Your task to perform on an android device: Go to Amazon Image 0: 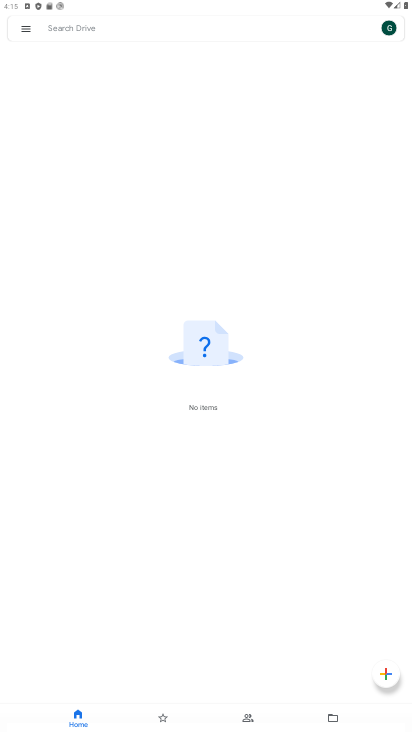
Step 0: press home button
Your task to perform on an android device: Go to Amazon Image 1: 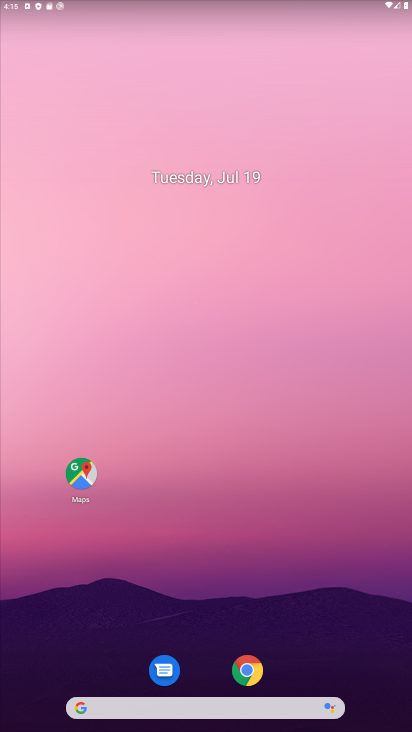
Step 1: drag from (163, 704) to (265, 99)
Your task to perform on an android device: Go to Amazon Image 2: 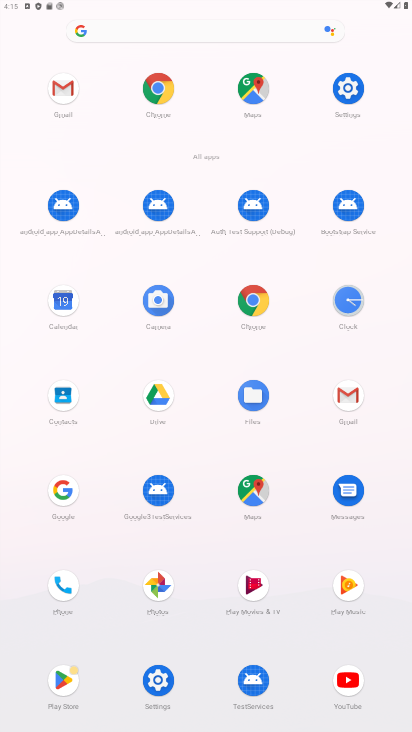
Step 2: click (270, 298)
Your task to perform on an android device: Go to Amazon Image 3: 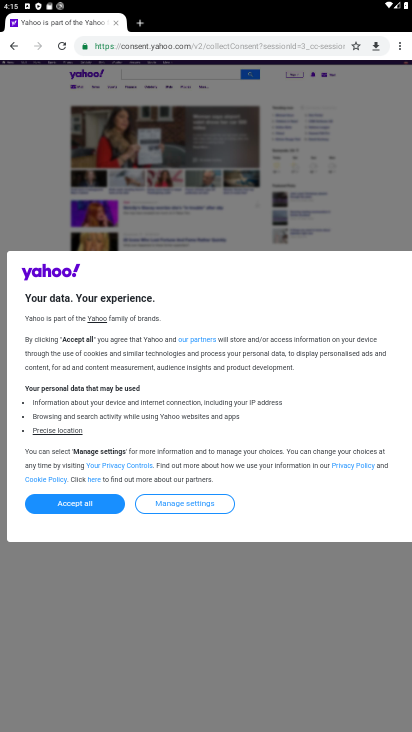
Step 3: click (186, 48)
Your task to perform on an android device: Go to Amazon Image 4: 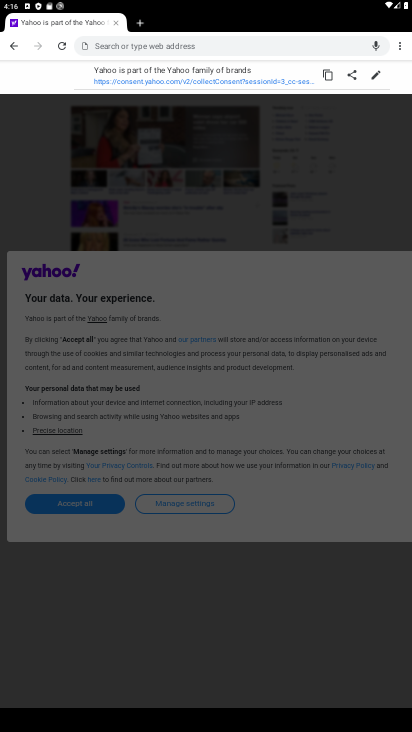
Step 4: type "amazon"
Your task to perform on an android device: Go to Amazon Image 5: 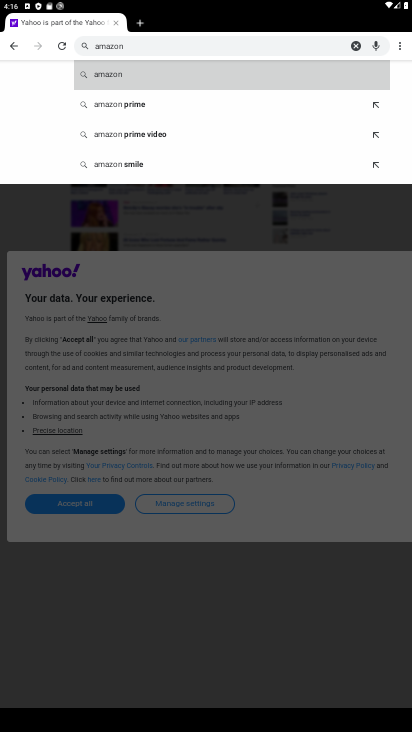
Step 5: click (122, 75)
Your task to perform on an android device: Go to Amazon Image 6: 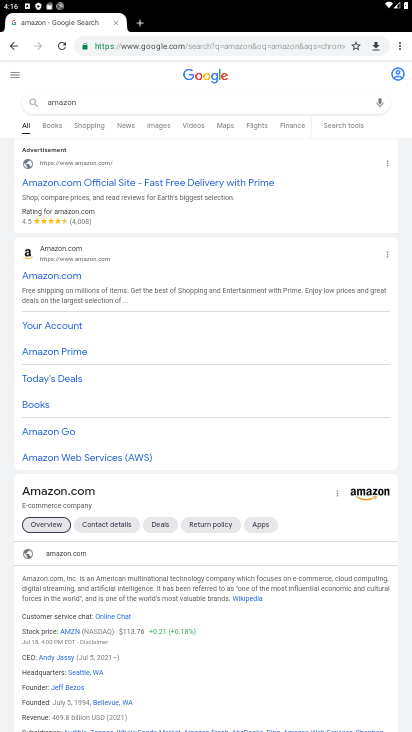
Step 6: click (142, 184)
Your task to perform on an android device: Go to Amazon Image 7: 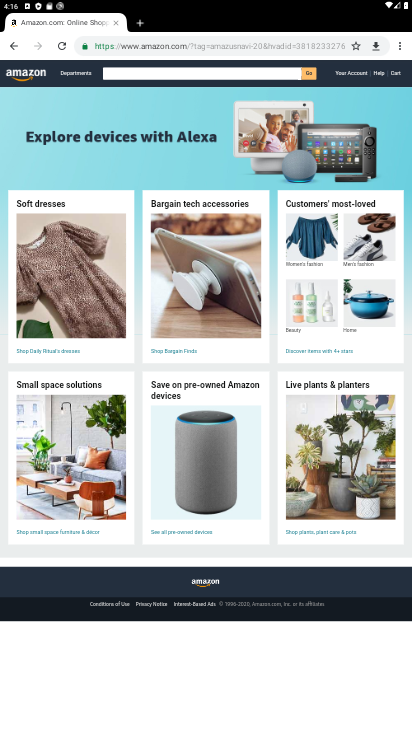
Step 7: task complete